Your task to perform on an android device: search for starred emails in the gmail app Image 0: 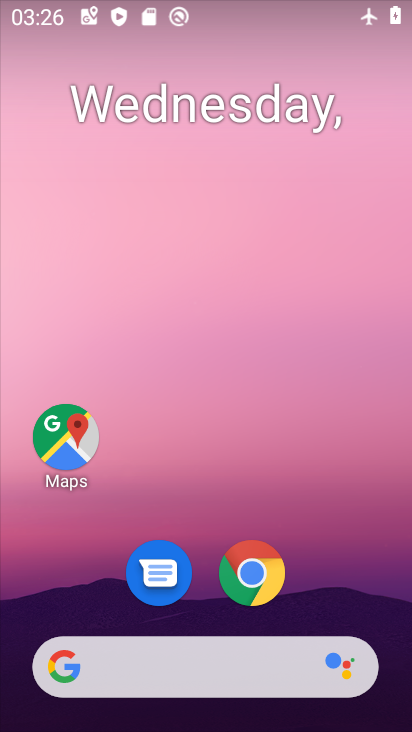
Step 0: drag from (369, 576) to (220, 0)
Your task to perform on an android device: search for starred emails in the gmail app Image 1: 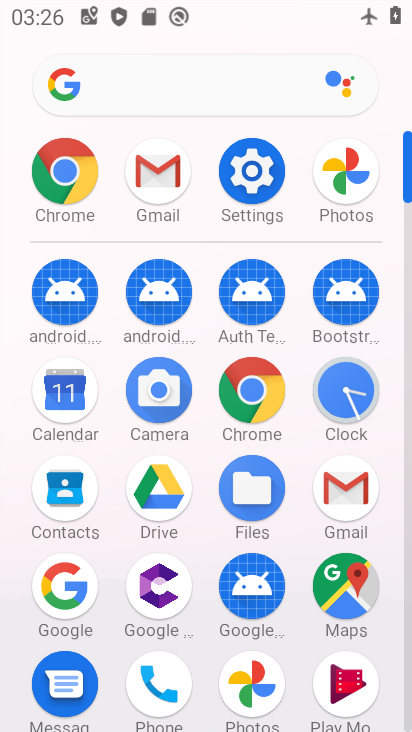
Step 1: click (156, 170)
Your task to perform on an android device: search for starred emails in the gmail app Image 2: 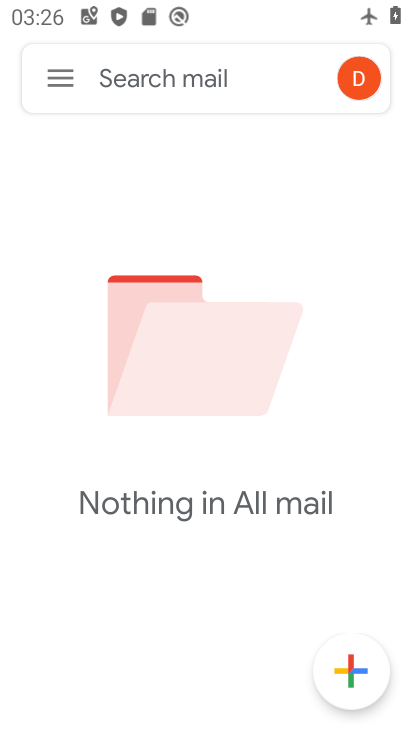
Step 2: click (57, 72)
Your task to perform on an android device: search for starred emails in the gmail app Image 3: 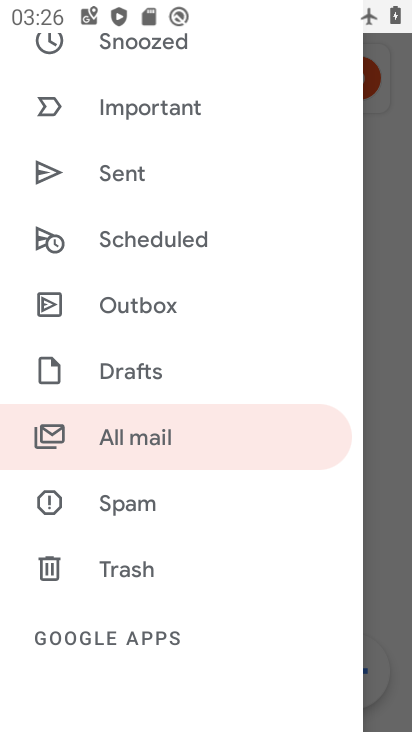
Step 3: drag from (179, 250) to (199, 448)
Your task to perform on an android device: search for starred emails in the gmail app Image 4: 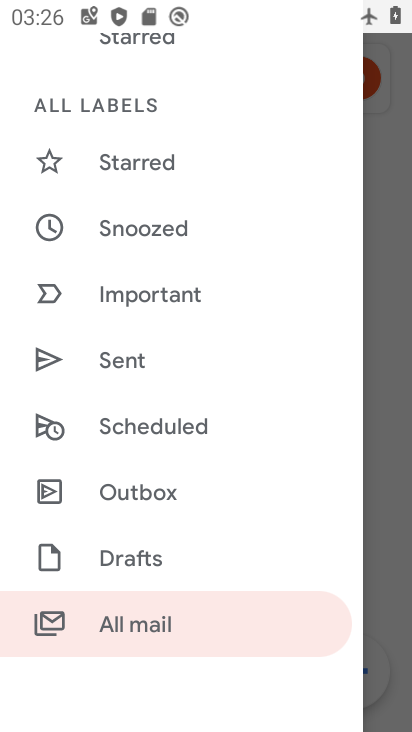
Step 4: drag from (168, 206) to (191, 448)
Your task to perform on an android device: search for starred emails in the gmail app Image 5: 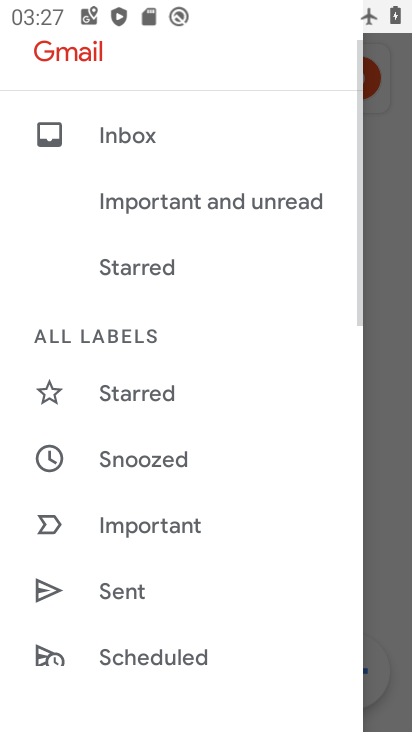
Step 5: drag from (153, 232) to (216, 340)
Your task to perform on an android device: search for starred emails in the gmail app Image 6: 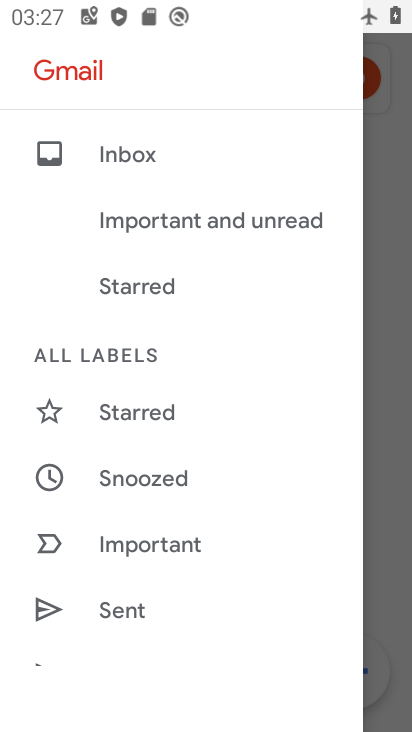
Step 6: click (164, 221)
Your task to perform on an android device: search for starred emails in the gmail app Image 7: 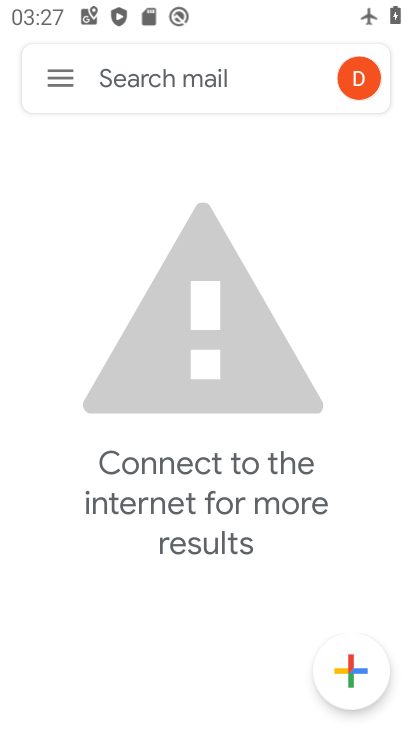
Step 7: click (54, 67)
Your task to perform on an android device: search for starred emails in the gmail app Image 8: 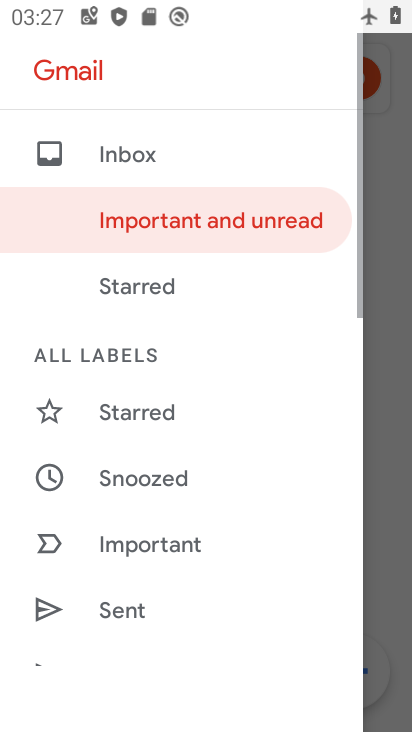
Step 8: click (131, 143)
Your task to perform on an android device: search for starred emails in the gmail app Image 9: 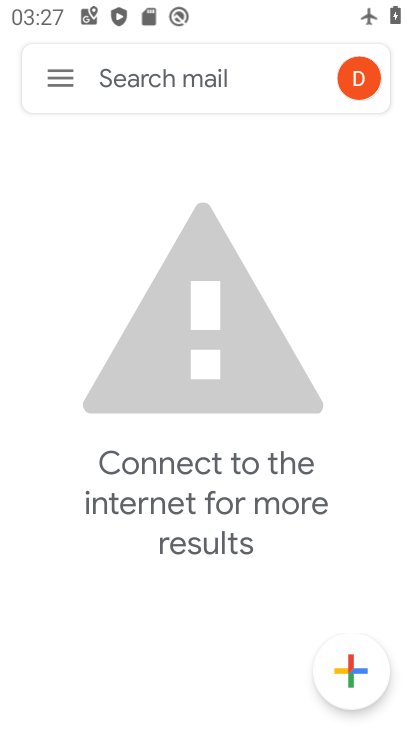
Step 9: click (65, 75)
Your task to perform on an android device: search for starred emails in the gmail app Image 10: 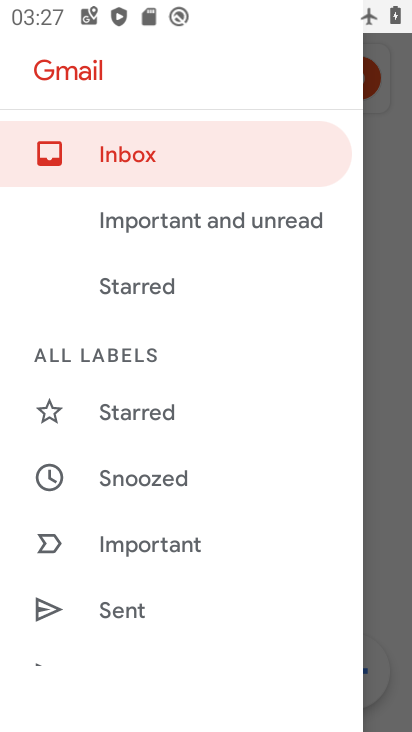
Step 10: click (120, 418)
Your task to perform on an android device: search for starred emails in the gmail app Image 11: 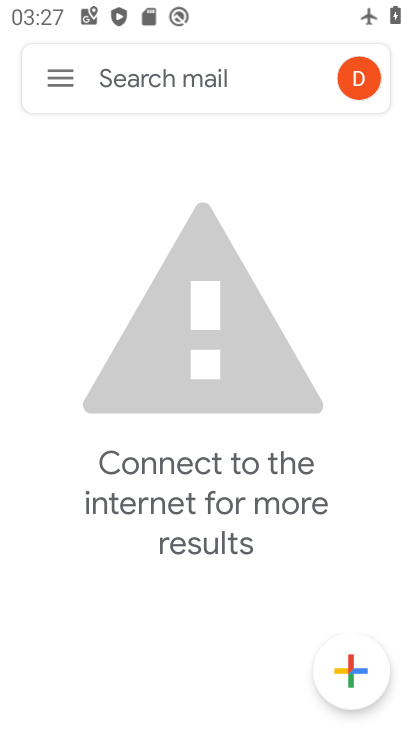
Step 11: task complete